Your task to perform on an android device: turn off location Image 0: 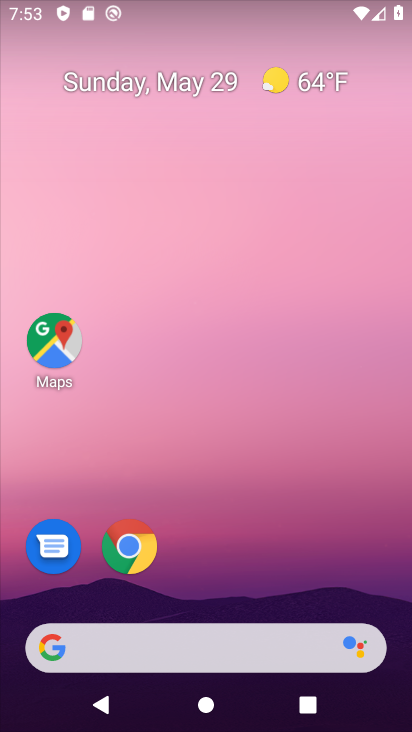
Step 0: drag from (307, 570) to (320, 176)
Your task to perform on an android device: turn off location Image 1: 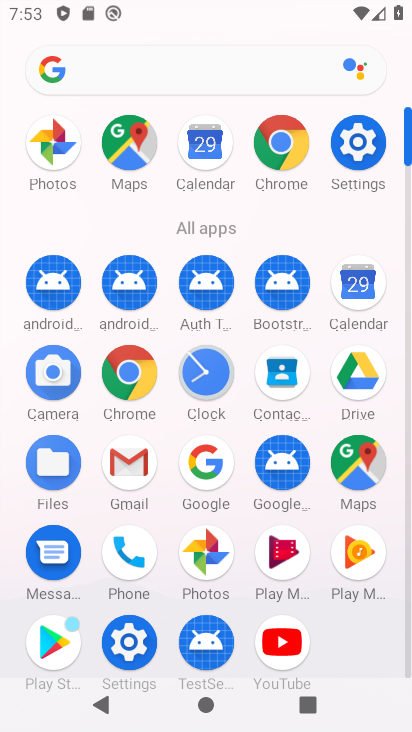
Step 1: click (361, 169)
Your task to perform on an android device: turn off location Image 2: 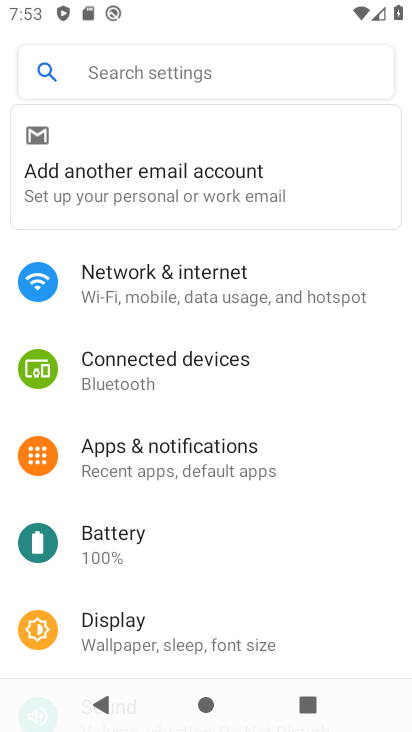
Step 2: drag from (223, 583) to (209, 144)
Your task to perform on an android device: turn off location Image 3: 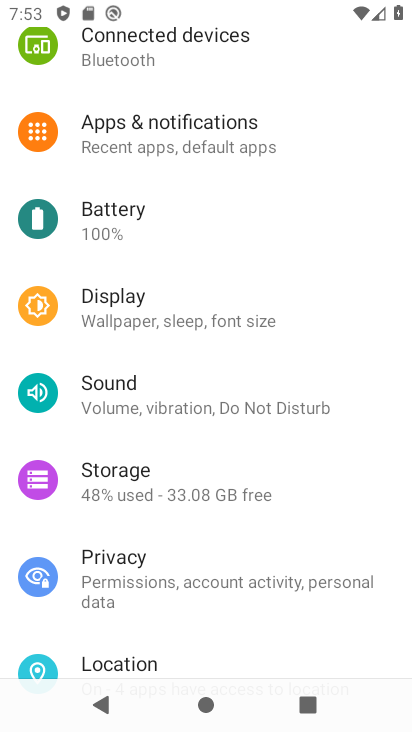
Step 3: drag from (181, 641) to (173, 358)
Your task to perform on an android device: turn off location Image 4: 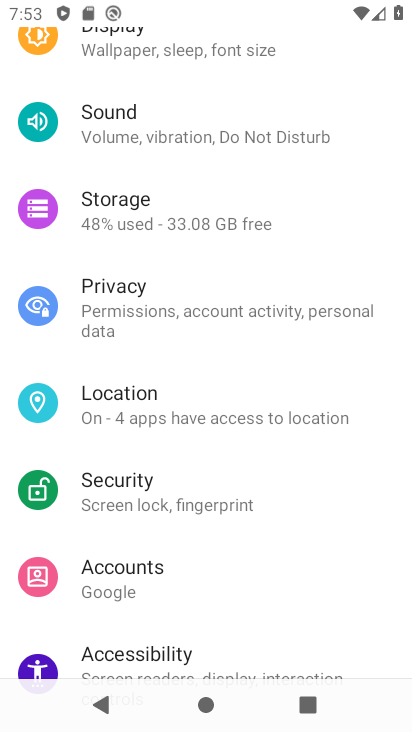
Step 4: click (175, 404)
Your task to perform on an android device: turn off location Image 5: 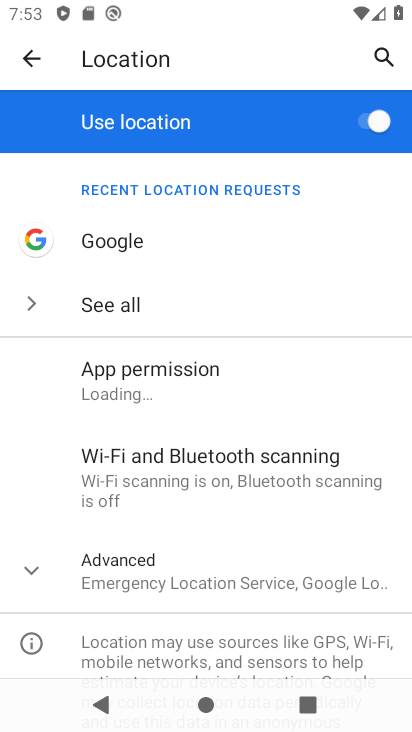
Step 5: click (371, 114)
Your task to perform on an android device: turn off location Image 6: 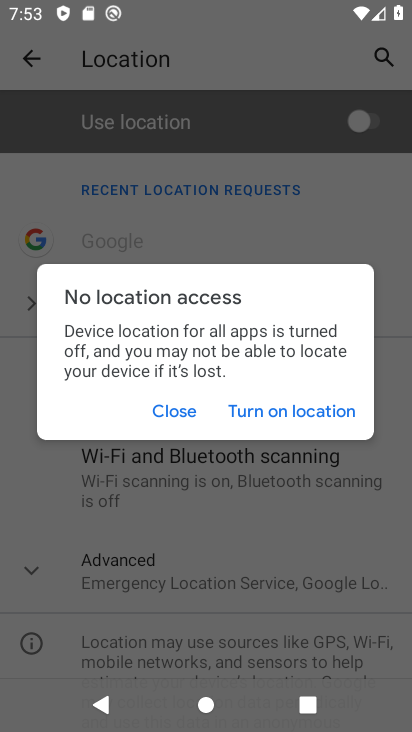
Step 6: task complete